Your task to perform on an android device: Open display settings Image 0: 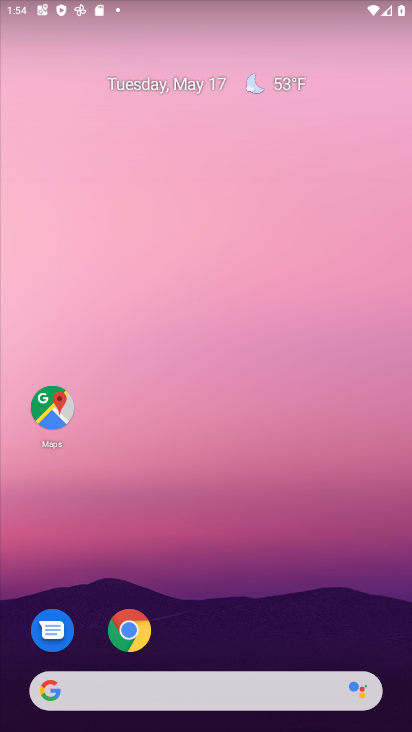
Step 0: drag from (202, 584) to (252, 168)
Your task to perform on an android device: Open display settings Image 1: 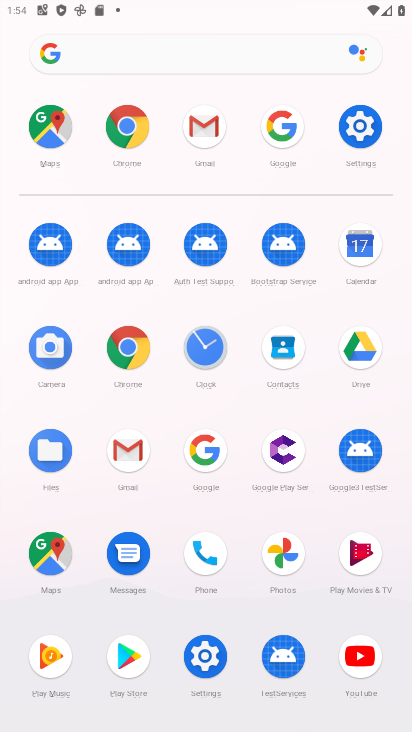
Step 1: click (367, 127)
Your task to perform on an android device: Open display settings Image 2: 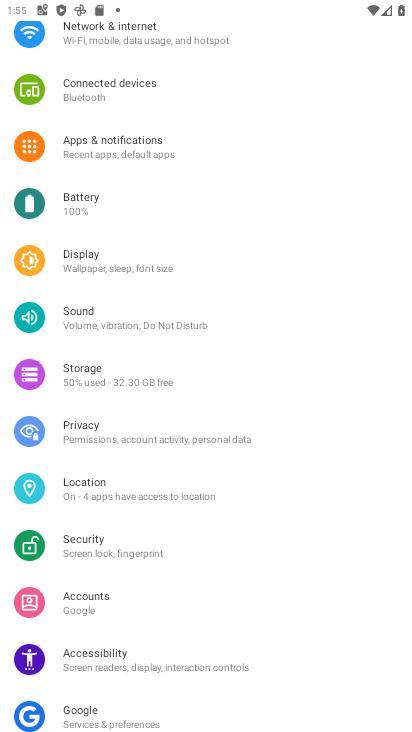
Step 2: click (113, 265)
Your task to perform on an android device: Open display settings Image 3: 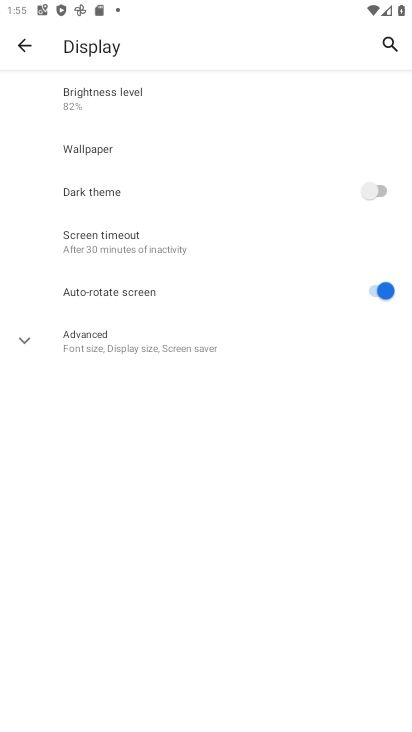
Step 3: task complete